Your task to perform on an android device: toggle notification dots Image 0: 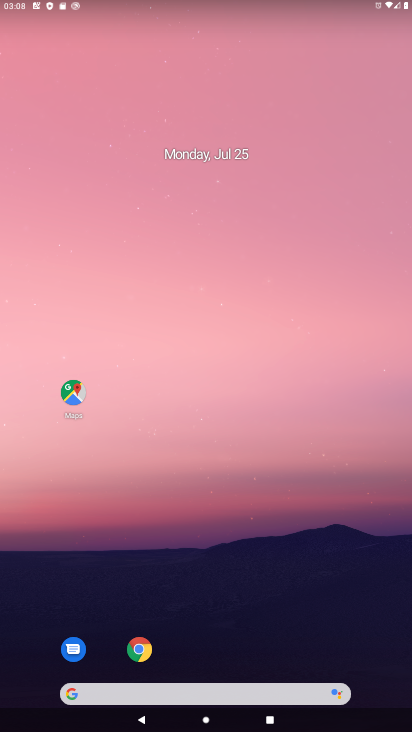
Step 0: drag from (382, 648) to (338, 196)
Your task to perform on an android device: toggle notification dots Image 1: 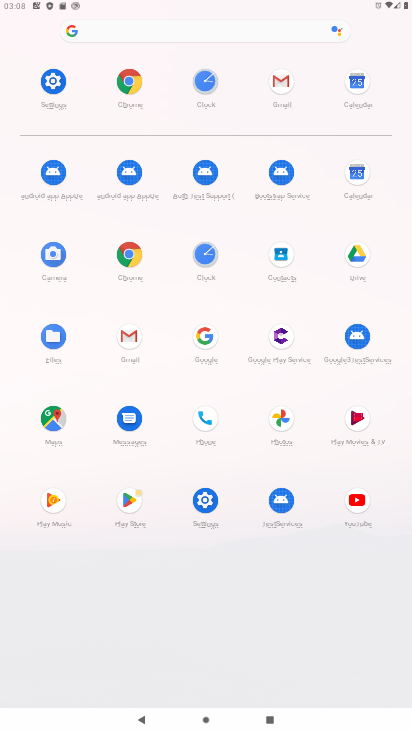
Step 1: click (205, 500)
Your task to perform on an android device: toggle notification dots Image 2: 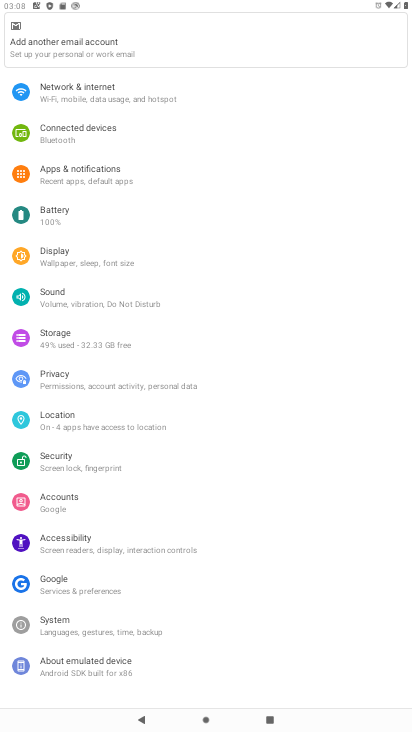
Step 2: click (83, 165)
Your task to perform on an android device: toggle notification dots Image 3: 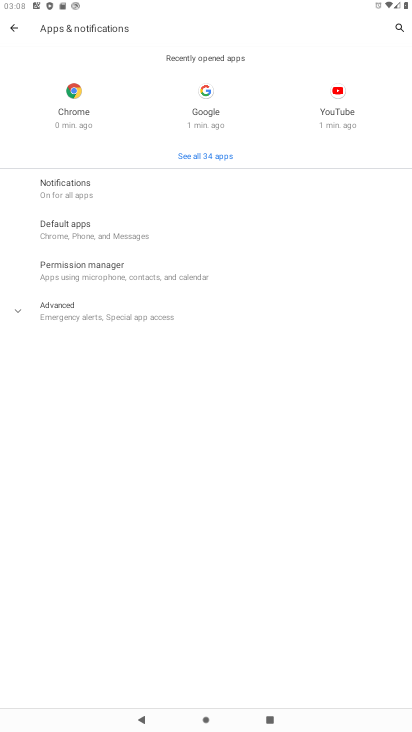
Step 3: click (55, 184)
Your task to perform on an android device: toggle notification dots Image 4: 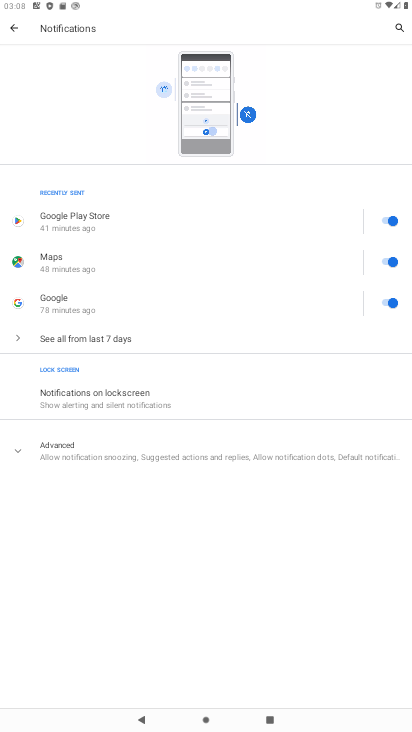
Step 4: click (14, 448)
Your task to perform on an android device: toggle notification dots Image 5: 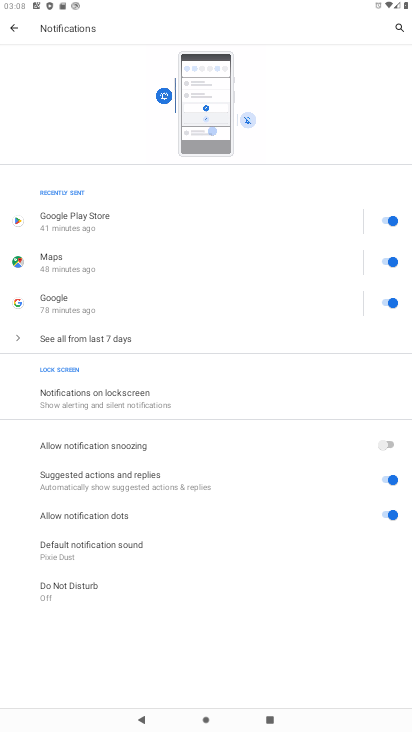
Step 5: click (387, 512)
Your task to perform on an android device: toggle notification dots Image 6: 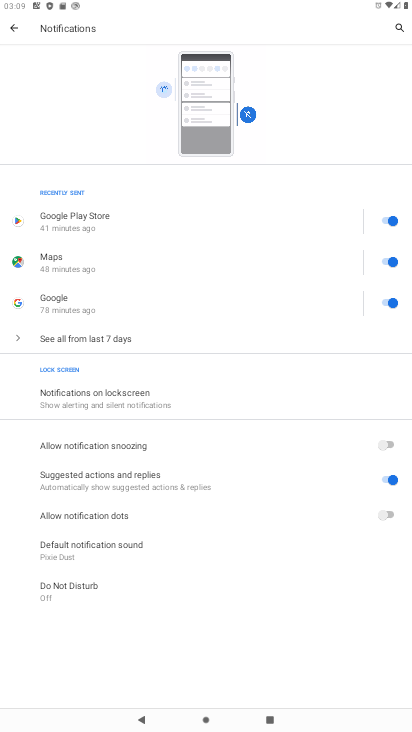
Step 6: task complete